Your task to perform on an android device: stop showing notifications on the lock screen Image 0: 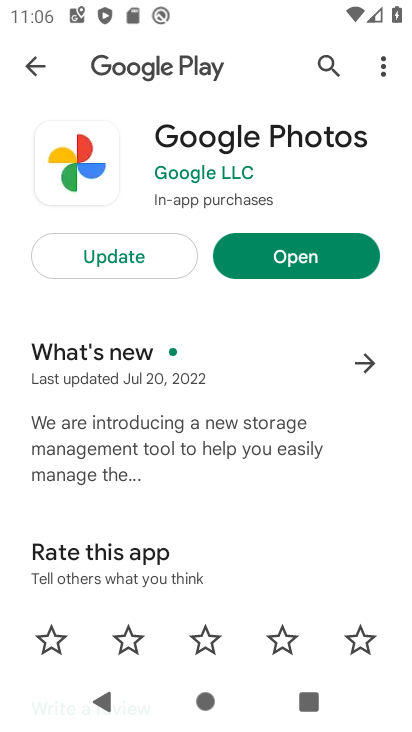
Step 0: press home button
Your task to perform on an android device: stop showing notifications on the lock screen Image 1: 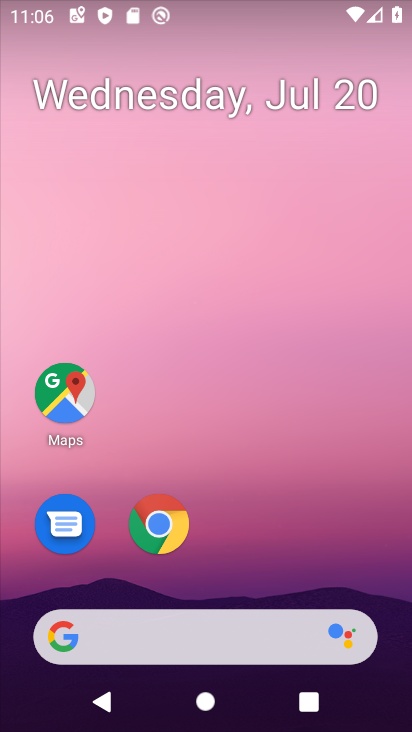
Step 1: drag from (267, 552) to (274, 44)
Your task to perform on an android device: stop showing notifications on the lock screen Image 2: 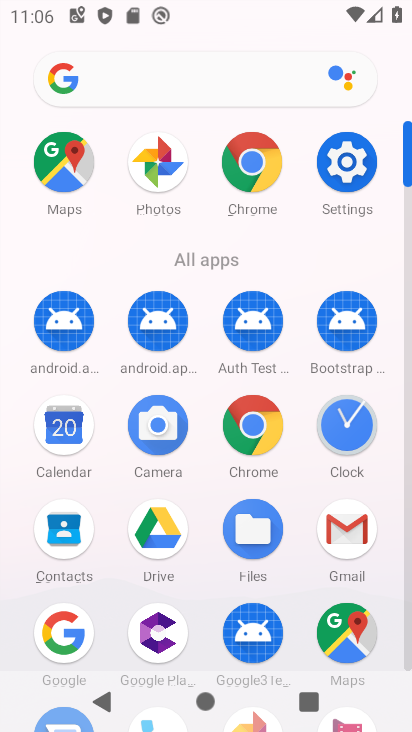
Step 2: click (347, 159)
Your task to perform on an android device: stop showing notifications on the lock screen Image 3: 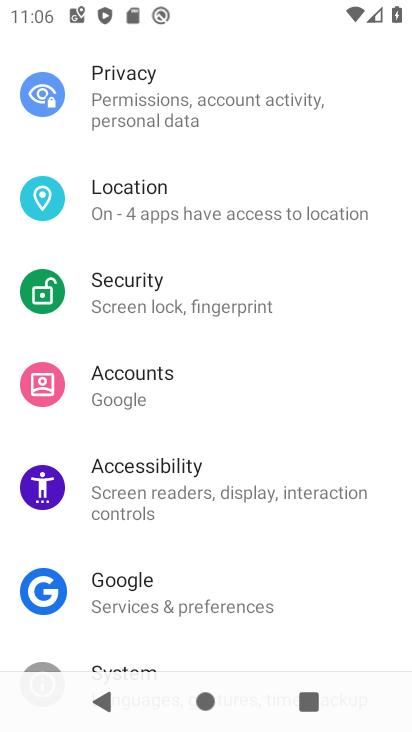
Step 3: drag from (247, 174) to (258, 697)
Your task to perform on an android device: stop showing notifications on the lock screen Image 4: 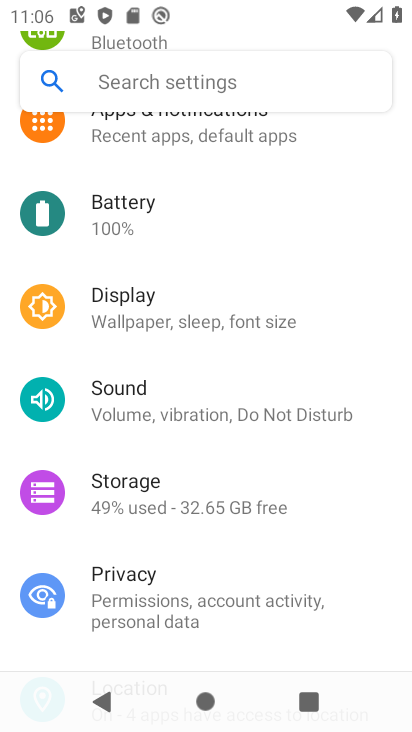
Step 4: drag from (235, 203) to (240, 579)
Your task to perform on an android device: stop showing notifications on the lock screen Image 5: 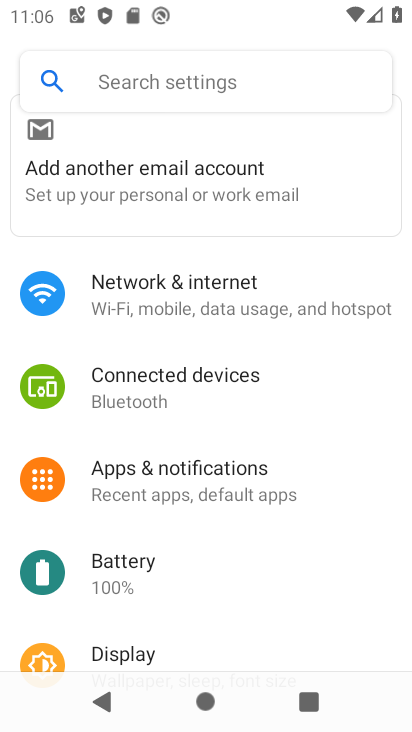
Step 5: click (226, 492)
Your task to perform on an android device: stop showing notifications on the lock screen Image 6: 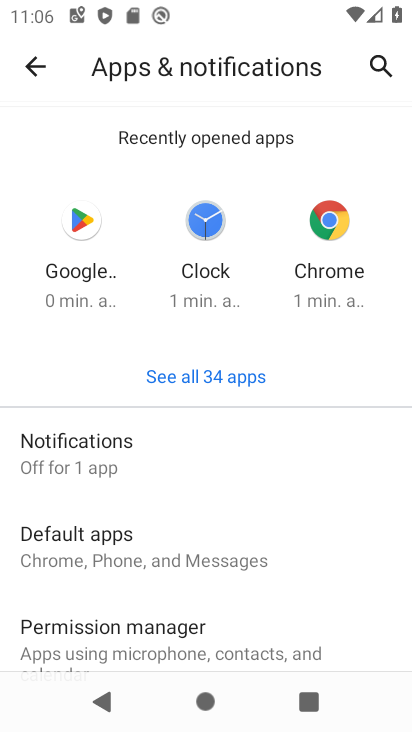
Step 6: click (90, 439)
Your task to perform on an android device: stop showing notifications on the lock screen Image 7: 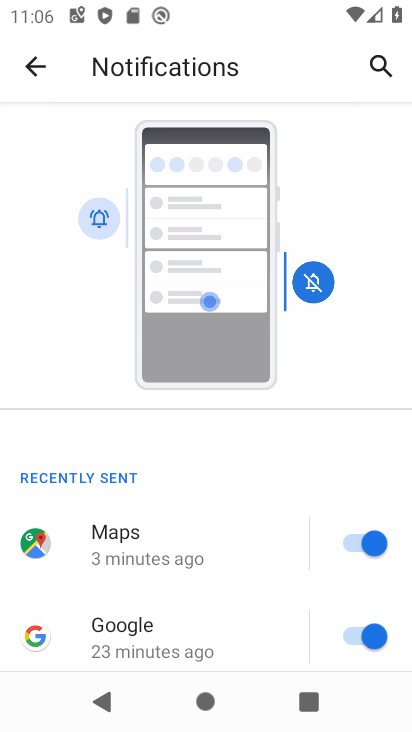
Step 7: drag from (237, 500) to (293, 67)
Your task to perform on an android device: stop showing notifications on the lock screen Image 8: 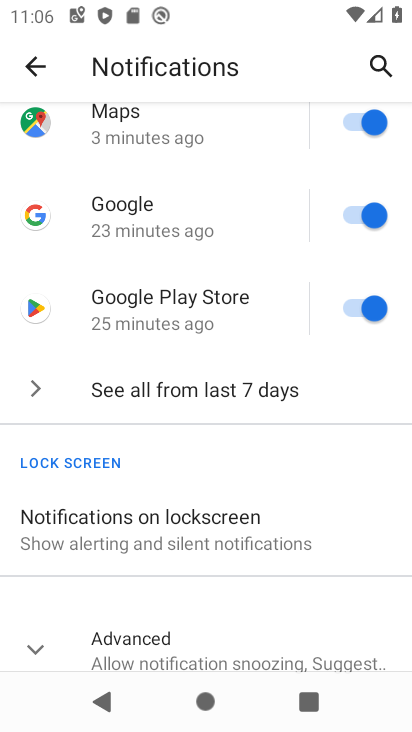
Step 8: click (154, 528)
Your task to perform on an android device: stop showing notifications on the lock screen Image 9: 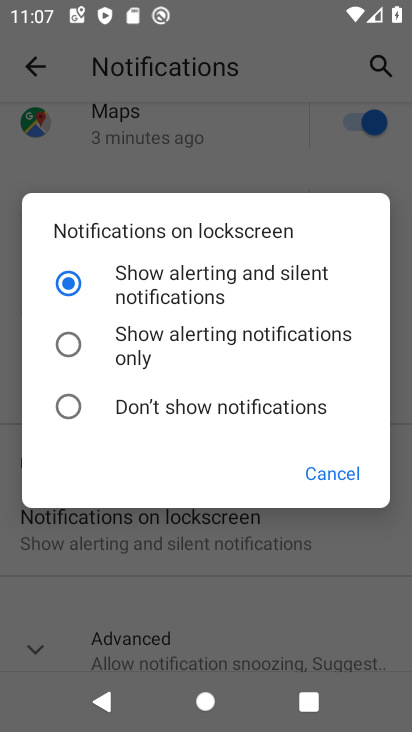
Step 9: click (65, 404)
Your task to perform on an android device: stop showing notifications on the lock screen Image 10: 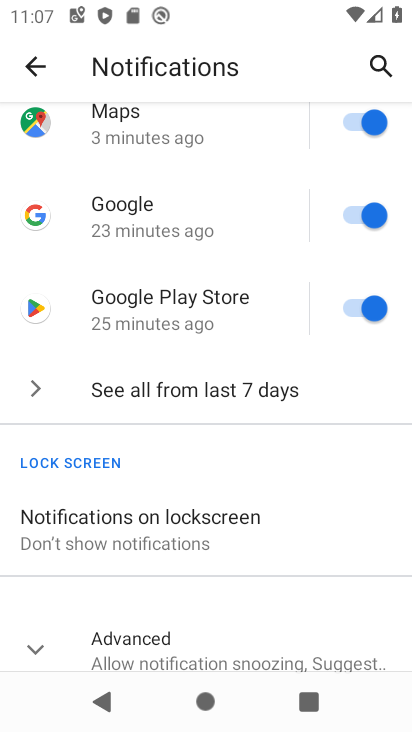
Step 10: task complete